Your task to perform on an android device: Open Chrome and go to the settings page Image 0: 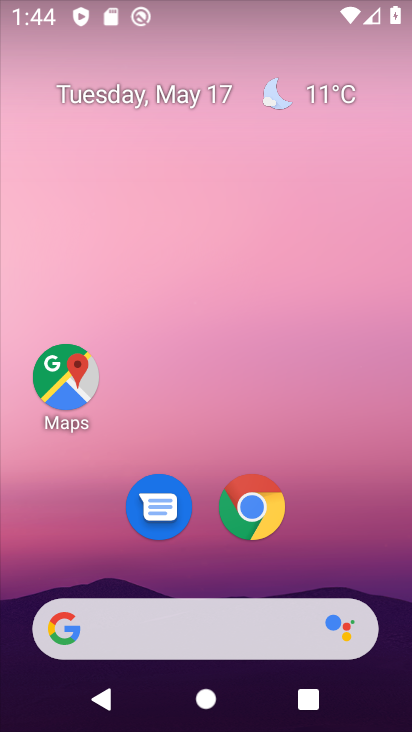
Step 0: click (256, 512)
Your task to perform on an android device: Open Chrome and go to the settings page Image 1: 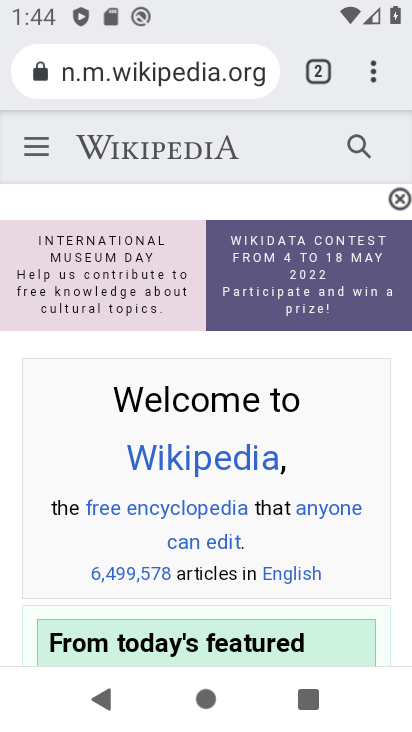
Step 1: click (382, 76)
Your task to perform on an android device: Open Chrome and go to the settings page Image 2: 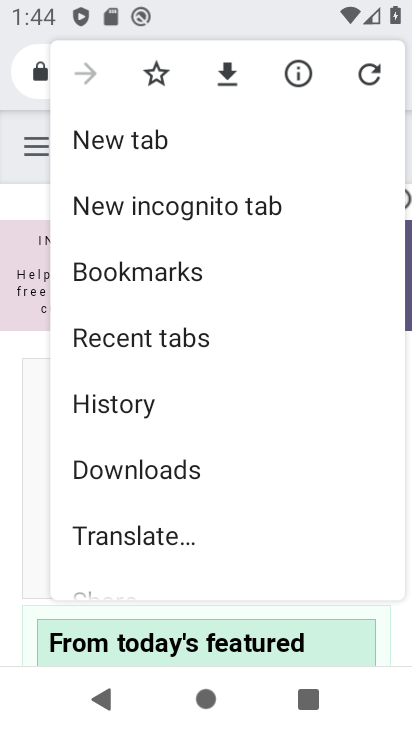
Step 2: drag from (111, 532) to (175, 164)
Your task to perform on an android device: Open Chrome and go to the settings page Image 3: 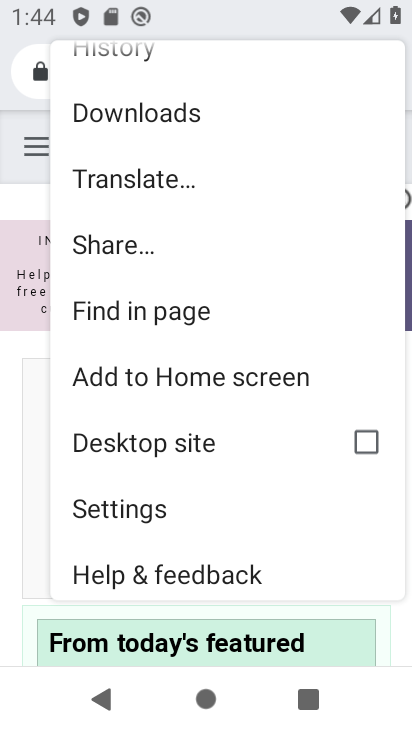
Step 3: click (132, 509)
Your task to perform on an android device: Open Chrome and go to the settings page Image 4: 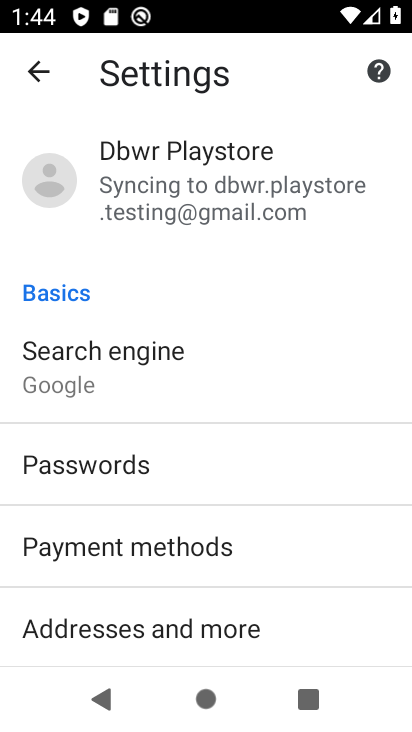
Step 4: task complete